Your task to perform on an android device: add a contact in the contacts app Image 0: 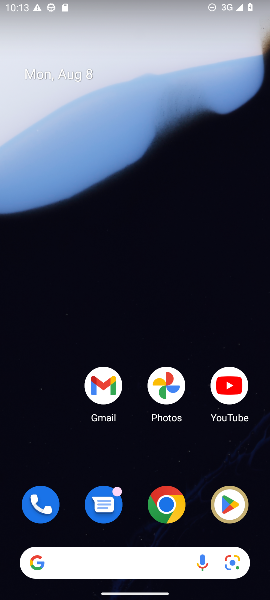
Step 0: drag from (125, 505) to (151, 109)
Your task to perform on an android device: add a contact in the contacts app Image 1: 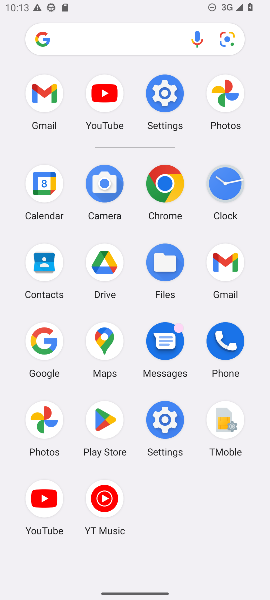
Step 1: click (32, 264)
Your task to perform on an android device: add a contact in the contacts app Image 2: 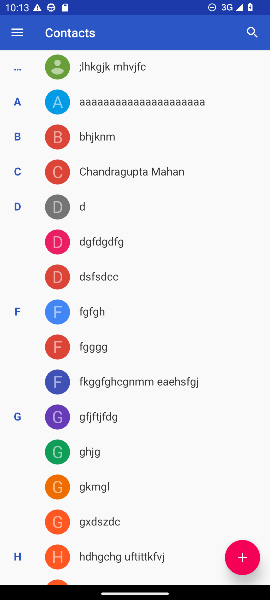
Step 2: click (248, 556)
Your task to perform on an android device: add a contact in the contacts app Image 3: 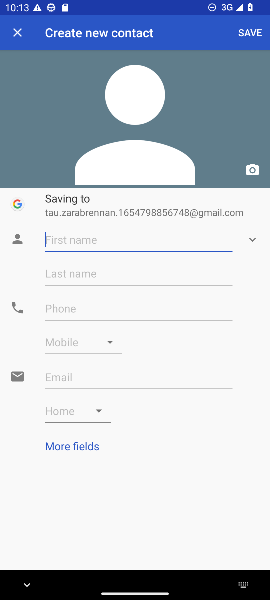
Step 3: type ",shgegvsdkj"
Your task to perform on an android device: add a contact in the contacts app Image 4: 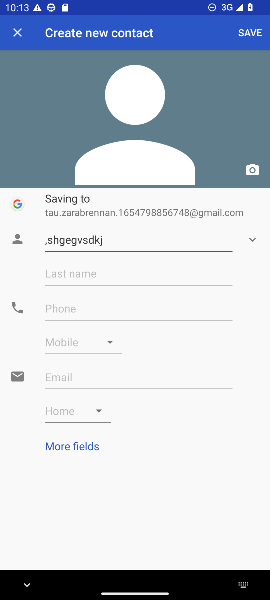
Step 4: click (258, 37)
Your task to perform on an android device: add a contact in the contacts app Image 5: 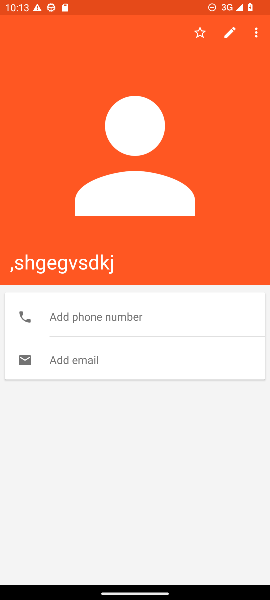
Step 5: task complete